Your task to perform on an android device: check the backup settings in the google photos Image 0: 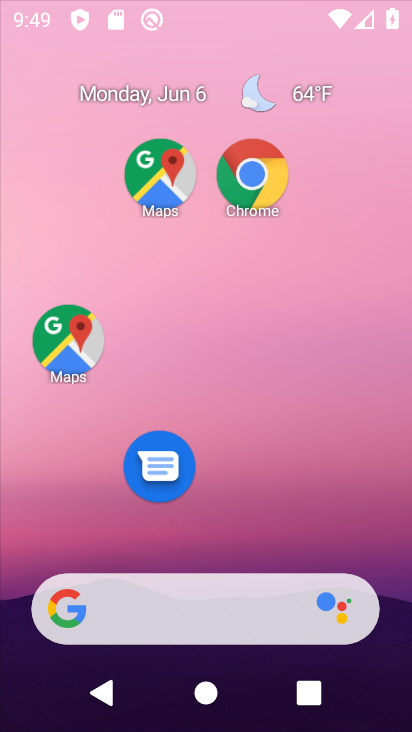
Step 0: click (310, 473)
Your task to perform on an android device: check the backup settings in the google photos Image 1: 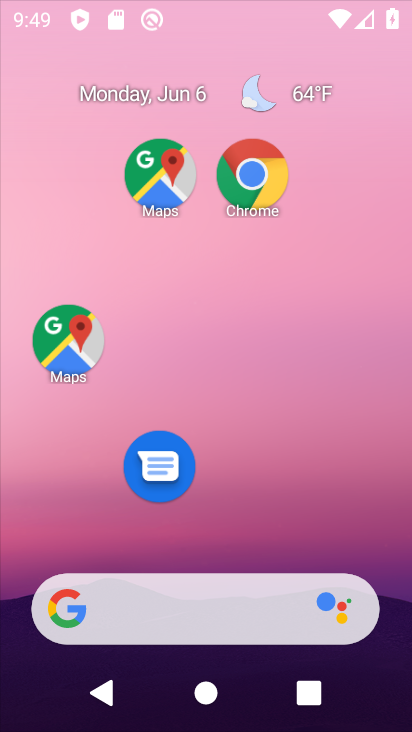
Step 1: drag from (252, 680) to (178, 331)
Your task to perform on an android device: check the backup settings in the google photos Image 2: 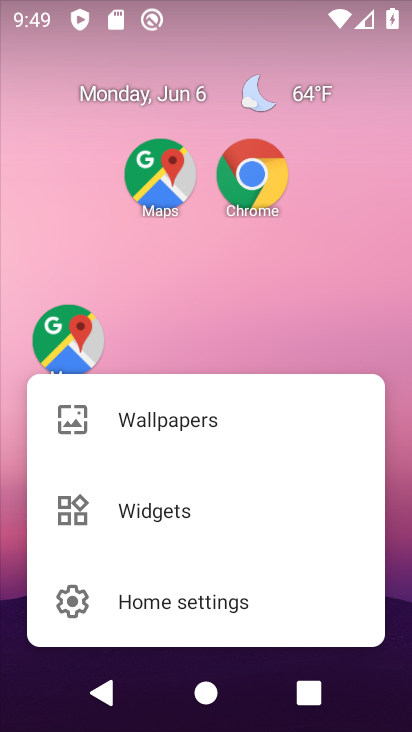
Step 2: click (280, 337)
Your task to perform on an android device: check the backup settings in the google photos Image 3: 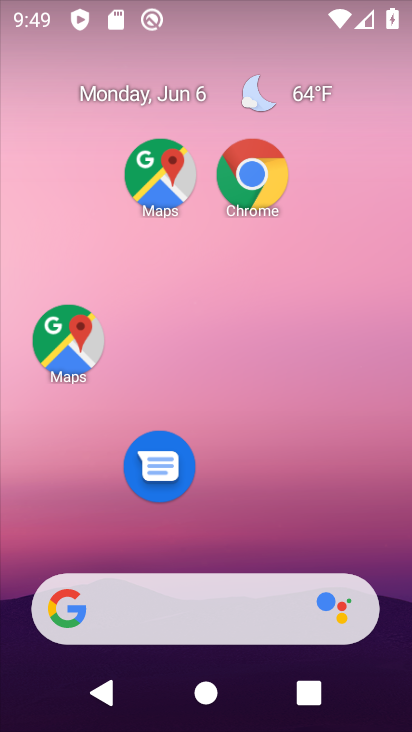
Step 3: click (281, 333)
Your task to perform on an android device: check the backup settings in the google photos Image 4: 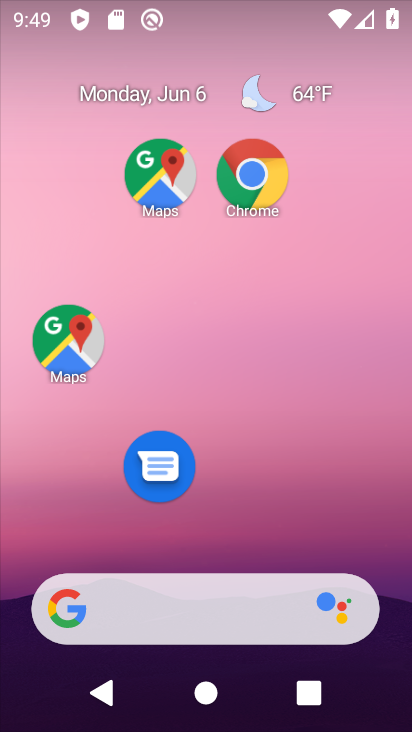
Step 4: drag from (254, 552) to (181, 210)
Your task to perform on an android device: check the backup settings in the google photos Image 5: 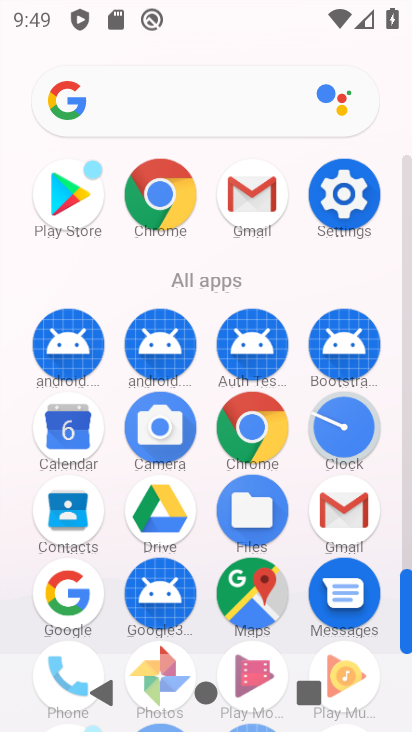
Step 5: drag from (187, 564) to (172, 341)
Your task to perform on an android device: check the backup settings in the google photos Image 6: 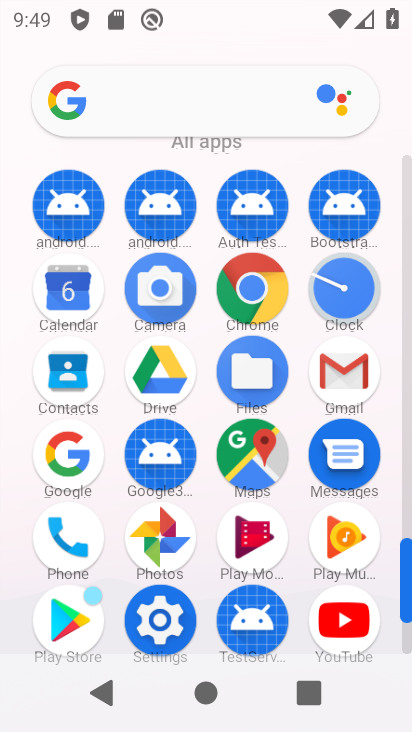
Step 6: drag from (202, 528) to (152, 340)
Your task to perform on an android device: check the backup settings in the google photos Image 7: 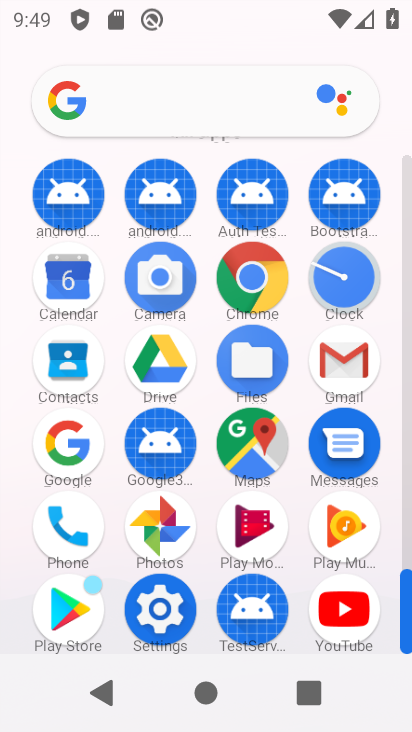
Step 7: click (157, 520)
Your task to perform on an android device: check the backup settings in the google photos Image 8: 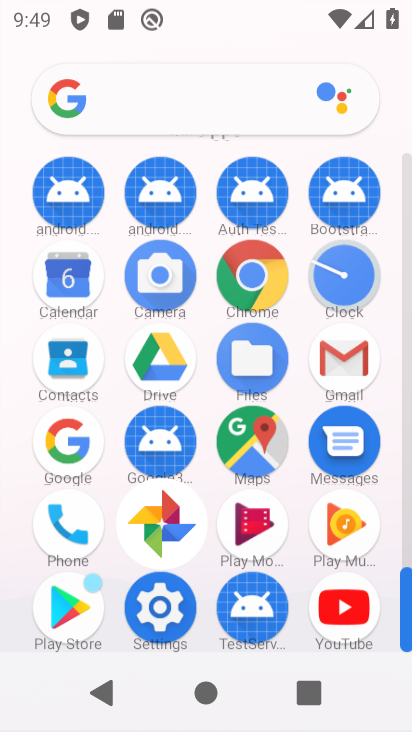
Step 8: click (157, 520)
Your task to perform on an android device: check the backup settings in the google photos Image 9: 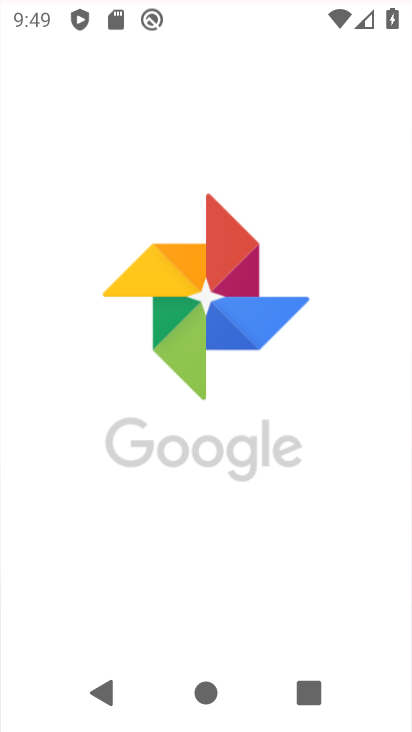
Step 9: click (157, 520)
Your task to perform on an android device: check the backup settings in the google photos Image 10: 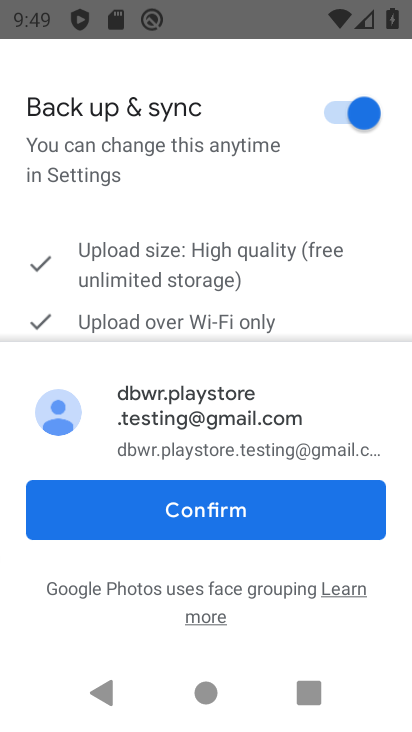
Step 10: click (229, 522)
Your task to perform on an android device: check the backup settings in the google photos Image 11: 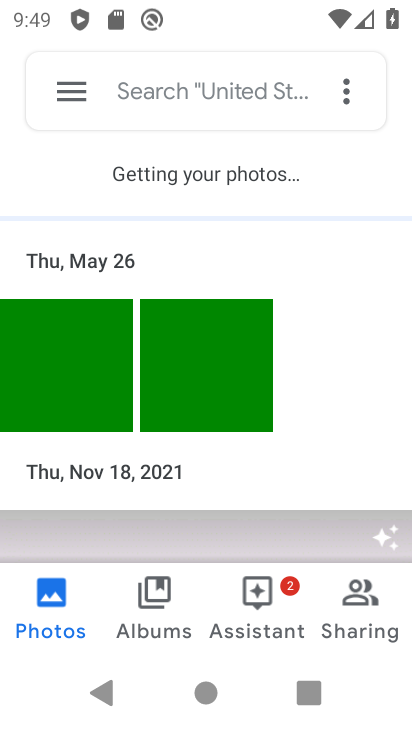
Step 11: click (72, 93)
Your task to perform on an android device: check the backup settings in the google photos Image 12: 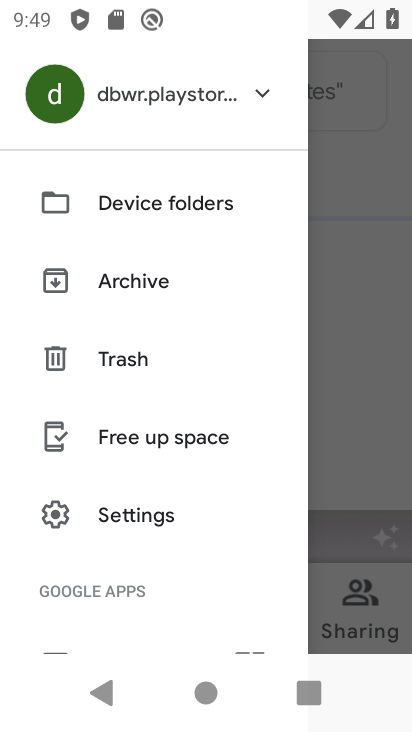
Step 12: click (133, 519)
Your task to perform on an android device: check the backup settings in the google photos Image 13: 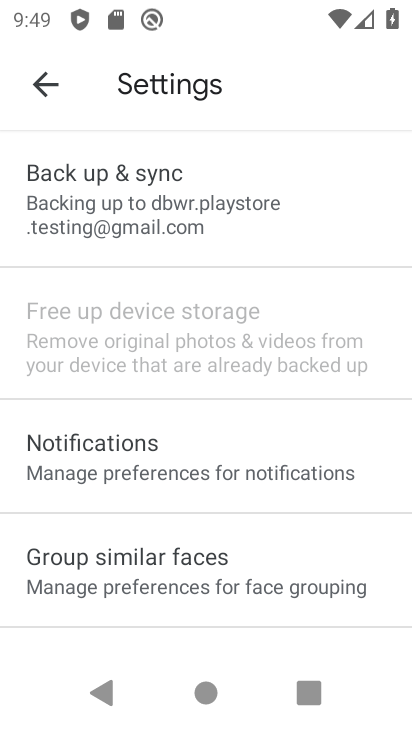
Step 13: click (120, 196)
Your task to perform on an android device: check the backup settings in the google photos Image 14: 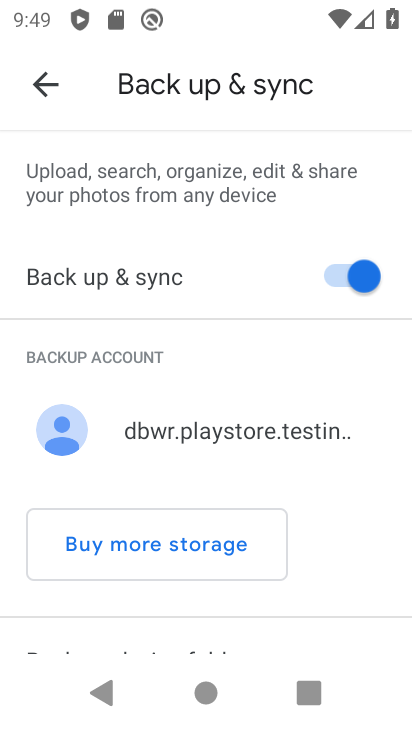
Step 14: click (77, 203)
Your task to perform on an android device: check the backup settings in the google photos Image 15: 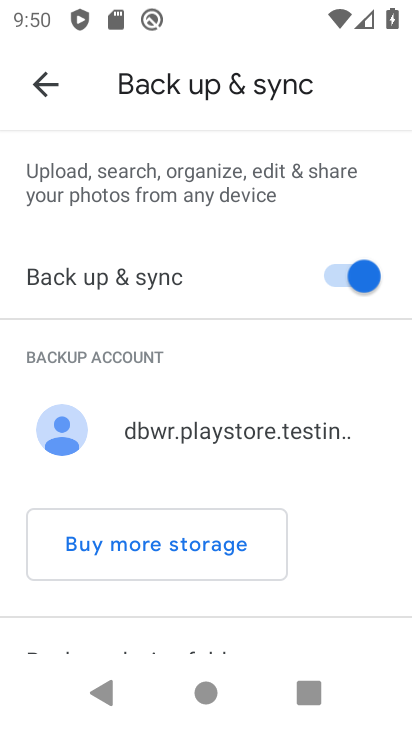
Step 15: click (88, 198)
Your task to perform on an android device: check the backup settings in the google photos Image 16: 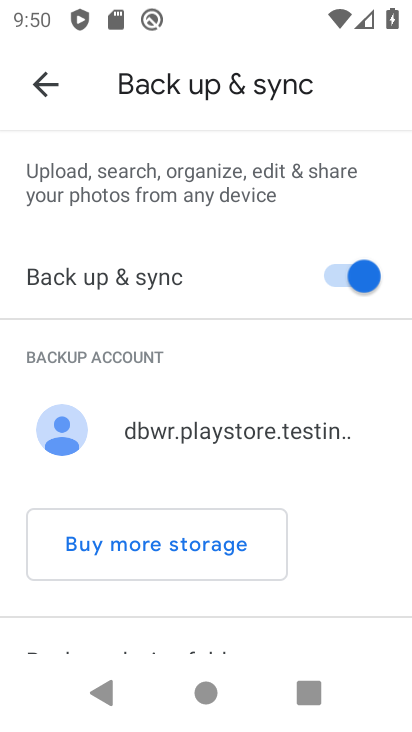
Step 16: click (349, 281)
Your task to perform on an android device: check the backup settings in the google photos Image 17: 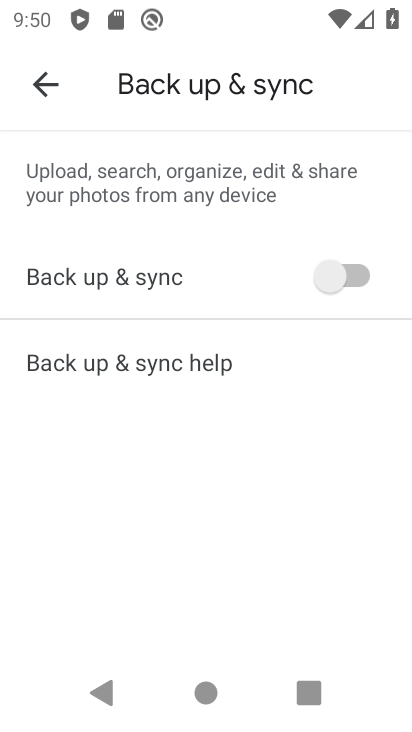
Step 17: click (326, 277)
Your task to perform on an android device: check the backup settings in the google photos Image 18: 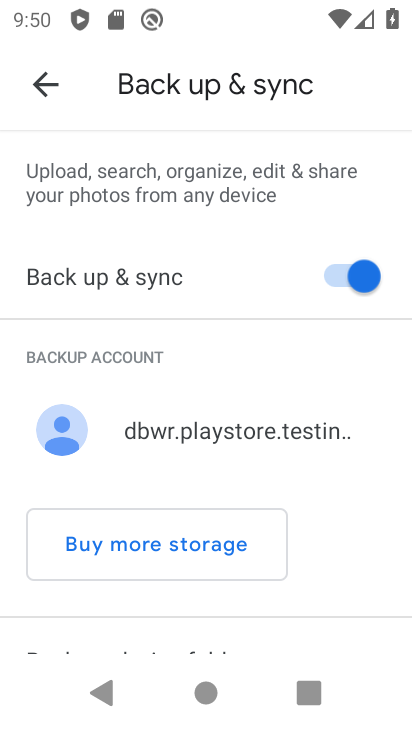
Step 18: click (125, 292)
Your task to perform on an android device: check the backup settings in the google photos Image 19: 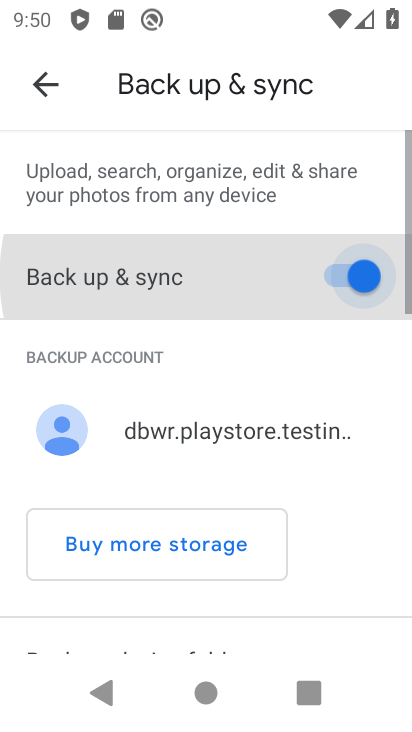
Step 19: click (125, 291)
Your task to perform on an android device: check the backup settings in the google photos Image 20: 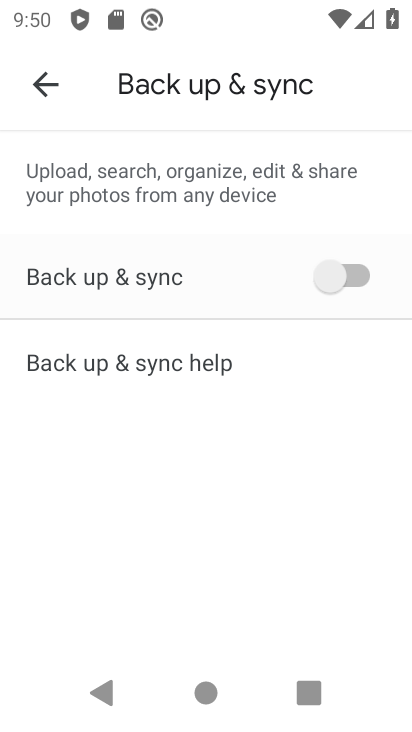
Step 20: click (124, 290)
Your task to perform on an android device: check the backup settings in the google photos Image 21: 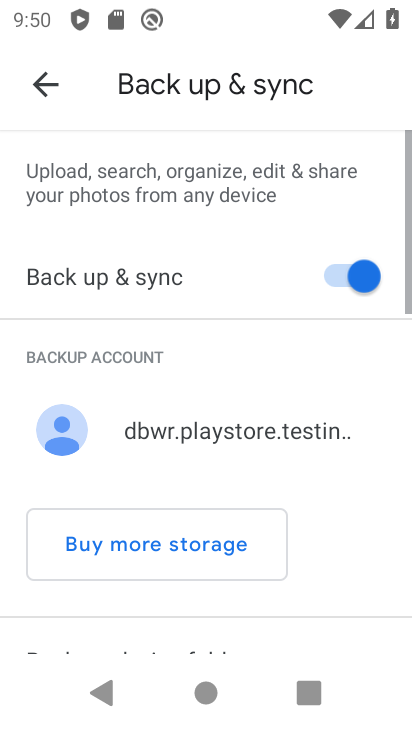
Step 21: click (123, 290)
Your task to perform on an android device: check the backup settings in the google photos Image 22: 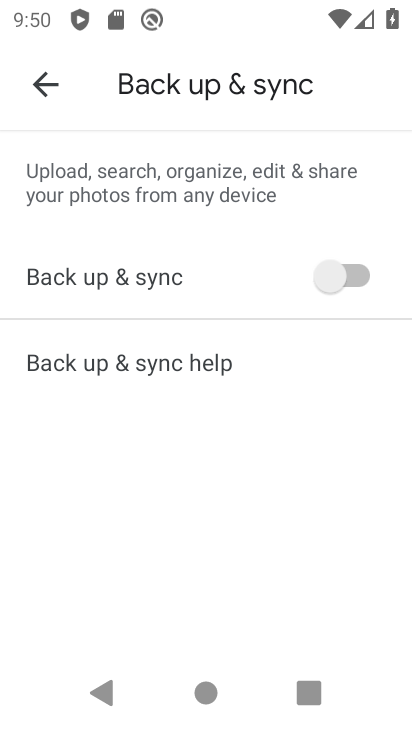
Step 22: task complete